Your task to perform on an android device: Show the shopping cart on newegg.com. Add usb-c to usb-a to the cart on newegg.com, then select checkout. Image 0: 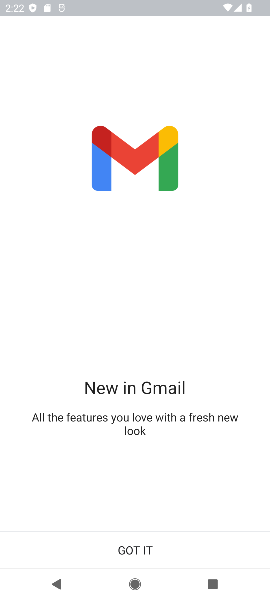
Step 0: click (200, 558)
Your task to perform on an android device: Show the shopping cart on newegg.com. Add usb-c to usb-a to the cart on newegg.com, then select checkout. Image 1: 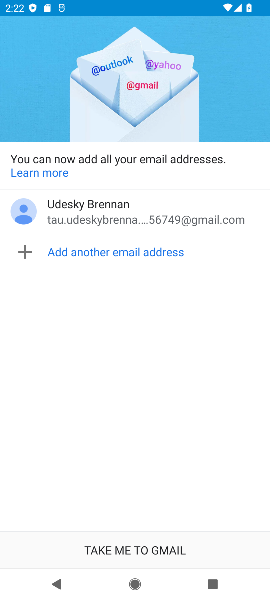
Step 1: click (212, 562)
Your task to perform on an android device: Show the shopping cart on newegg.com. Add usb-c to usb-a to the cart on newegg.com, then select checkout. Image 2: 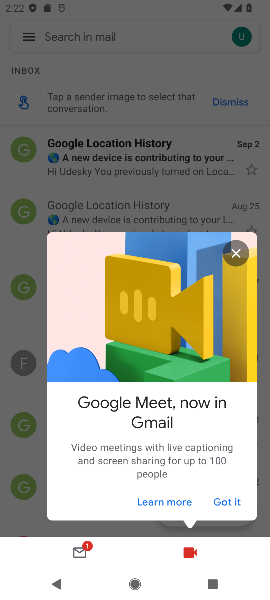
Step 2: click (241, 499)
Your task to perform on an android device: Show the shopping cart on newegg.com. Add usb-c to usb-a to the cart on newegg.com, then select checkout. Image 3: 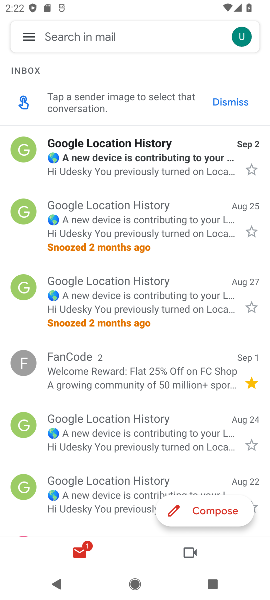
Step 3: press home button
Your task to perform on an android device: Show the shopping cart on newegg.com. Add usb-c to usb-a to the cart on newegg.com, then select checkout. Image 4: 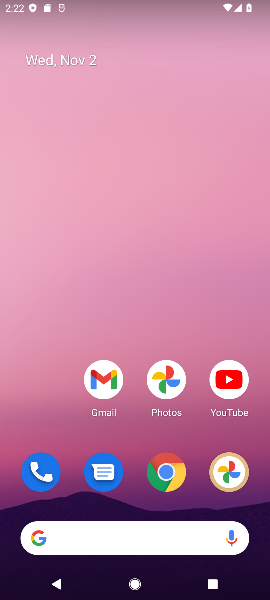
Step 4: click (169, 470)
Your task to perform on an android device: Show the shopping cart on newegg.com. Add usb-c to usb-a to the cart on newegg.com, then select checkout. Image 5: 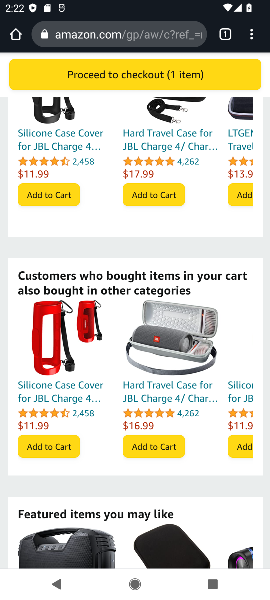
Step 5: click (112, 22)
Your task to perform on an android device: Show the shopping cart on newegg.com. Add usb-c to usb-a to the cart on newegg.com, then select checkout. Image 6: 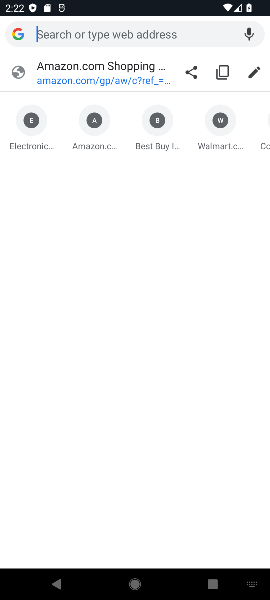
Step 6: type "newegg.com"
Your task to perform on an android device: Show the shopping cart on newegg.com. Add usb-c to usb-a to the cart on newegg.com, then select checkout. Image 7: 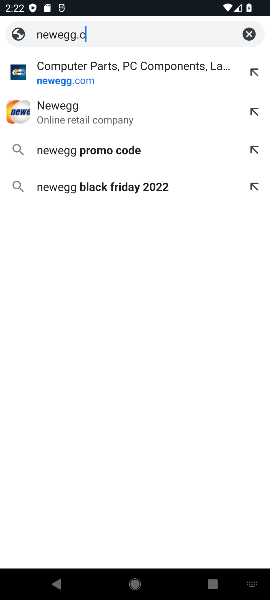
Step 7: type ""
Your task to perform on an android device: Show the shopping cart on newegg.com. Add usb-c to usb-a to the cart on newegg.com, then select checkout. Image 8: 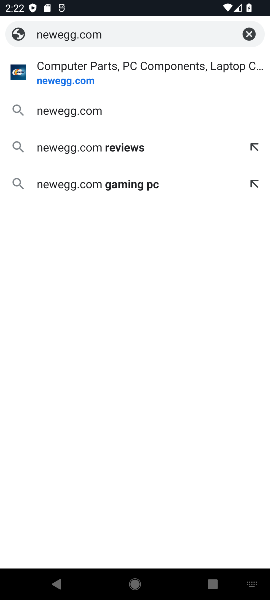
Step 8: click (81, 81)
Your task to perform on an android device: Show the shopping cart on newegg.com. Add usb-c to usb-a to the cart on newegg.com, then select checkout. Image 9: 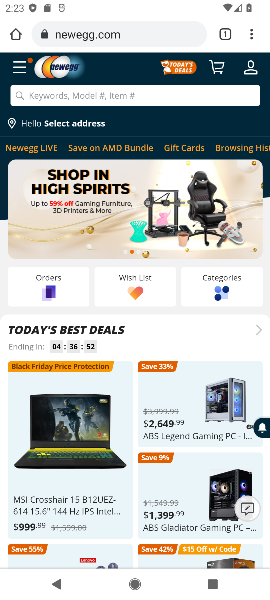
Step 9: click (45, 98)
Your task to perform on an android device: Show the shopping cart on newegg.com. Add usb-c to usb-a to the cart on newegg.com, then select checkout. Image 10: 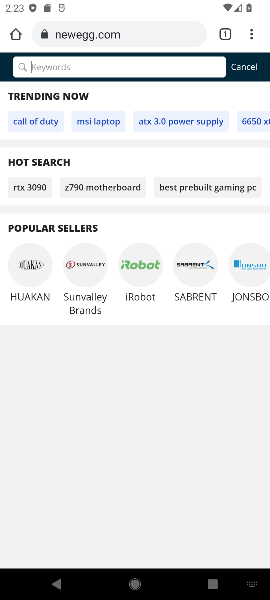
Step 10: type "usb-c to usb-a"
Your task to perform on an android device: Show the shopping cart on newegg.com. Add usb-c to usb-a to the cart on newegg.com, then select checkout. Image 11: 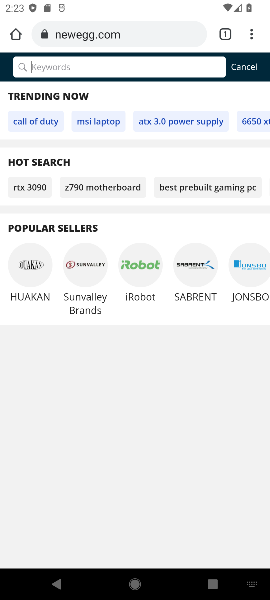
Step 11: type ""
Your task to perform on an android device: Show the shopping cart on newegg.com. Add usb-c to usb-a to the cart on newegg.com, then select checkout. Image 12: 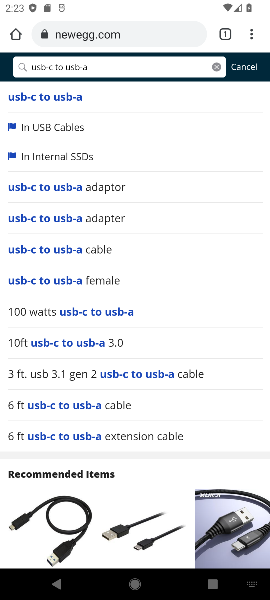
Step 12: click (30, 94)
Your task to perform on an android device: Show the shopping cart on newegg.com. Add usb-c to usb-a to the cart on newegg.com, then select checkout. Image 13: 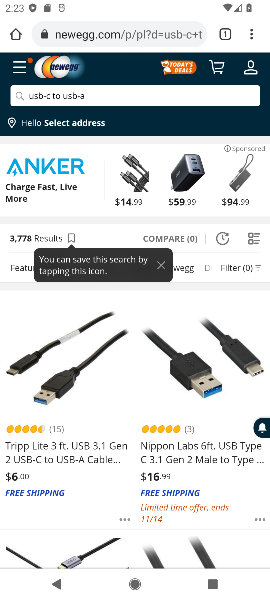
Step 13: click (59, 373)
Your task to perform on an android device: Show the shopping cart on newegg.com. Add usb-c to usb-a to the cart on newegg.com, then select checkout. Image 14: 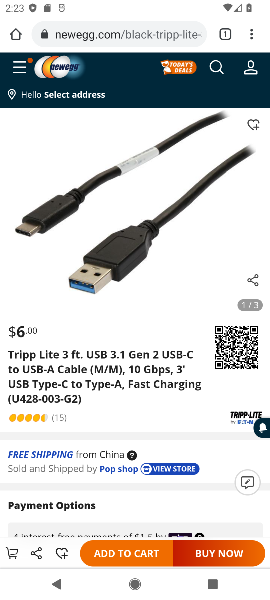
Step 14: click (113, 554)
Your task to perform on an android device: Show the shopping cart on newegg.com. Add usb-c to usb-a to the cart on newegg.com, then select checkout. Image 15: 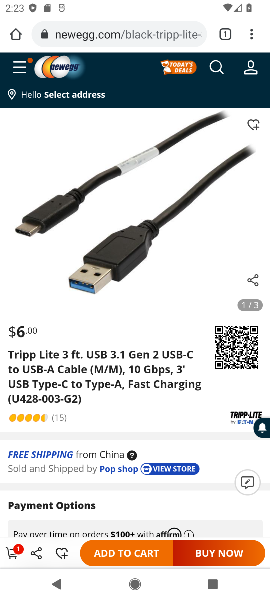
Step 15: click (13, 557)
Your task to perform on an android device: Show the shopping cart on newegg.com. Add usb-c to usb-a to the cart on newegg.com, then select checkout. Image 16: 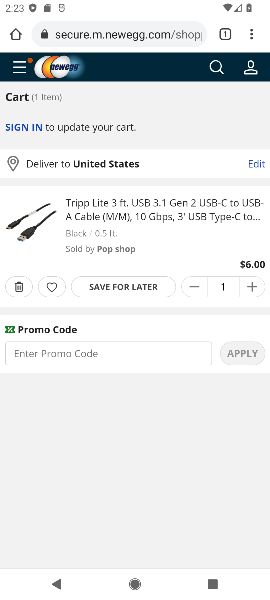
Step 16: click (119, 420)
Your task to perform on an android device: Show the shopping cart on newegg.com. Add usb-c to usb-a to the cart on newegg.com, then select checkout. Image 17: 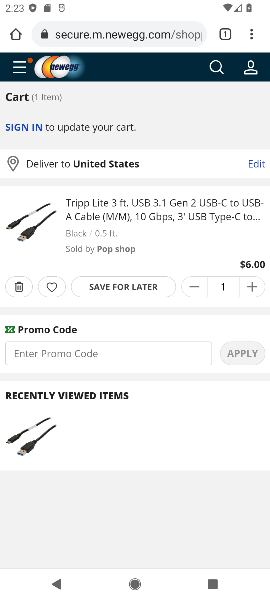
Step 17: drag from (122, 420) to (137, 161)
Your task to perform on an android device: Show the shopping cart on newegg.com. Add usb-c to usb-a to the cart on newegg.com, then select checkout. Image 18: 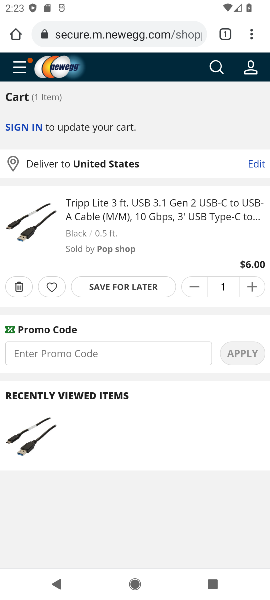
Step 18: drag from (136, 487) to (155, 208)
Your task to perform on an android device: Show the shopping cart on newegg.com. Add usb-c to usb-a to the cart on newegg.com, then select checkout. Image 19: 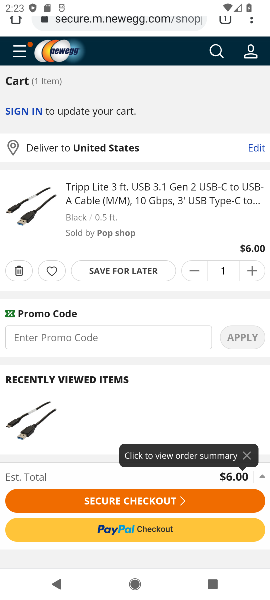
Step 19: drag from (150, 482) to (144, 263)
Your task to perform on an android device: Show the shopping cart on newegg.com. Add usb-c to usb-a to the cart on newegg.com, then select checkout. Image 20: 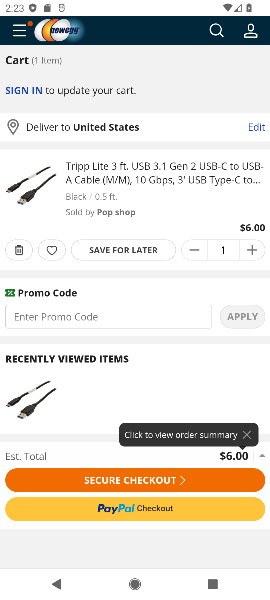
Step 20: drag from (142, 402) to (141, 250)
Your task to perform on an android device: Show the shopping cart on newegg.com. Add usb-c to usb-a to the cart on newegg.com, then select checkout. Image 21: 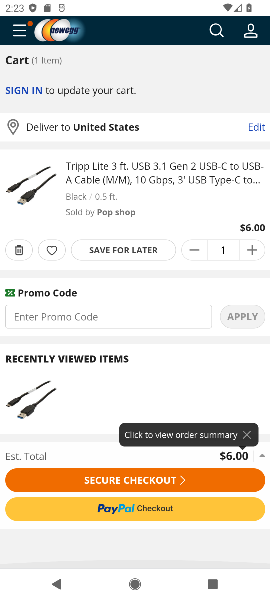
Step 21: drag from (158, 391) to (166, 237)
Your task to perform on an android device: Show the shopping cart on newegg.com. Add usb-c to usb-a to the cart on newegg.com, then select checkout. Image 22: 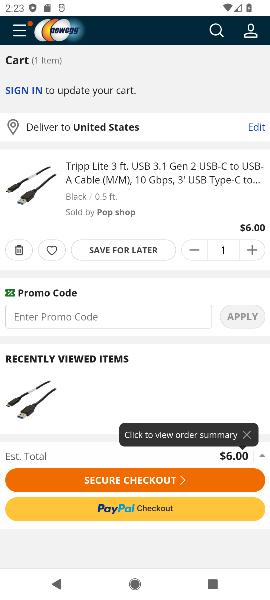
Step 22: click (155, 482)
Your task to perform on an android device: Show the shopping cart on newegg.com. Add usb-c to usb-a to the cart on newegg.com, then select checkout. Image 23: 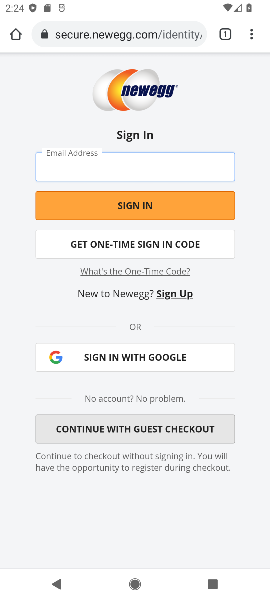
Step 23: click (170, 434)
Your task to perform on an android device: Show the shopping cart on newegg.com. Add usb-c to usb-a to the cart on newegg.com, then select checkout. Image 24: 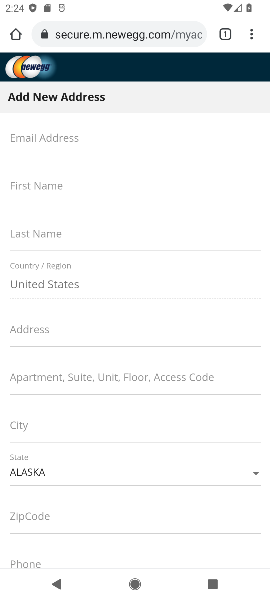
Step 24: task complete